Your task to perform on an android device: Search for pizza restaurants on Maps Image 0: 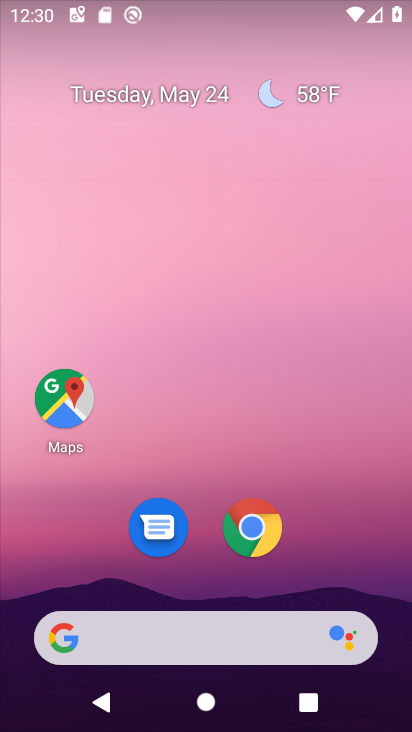
Step 0: click (56, 393)
Your task to perform on an android device: Search for pizza restaurants on Maps Image 1: 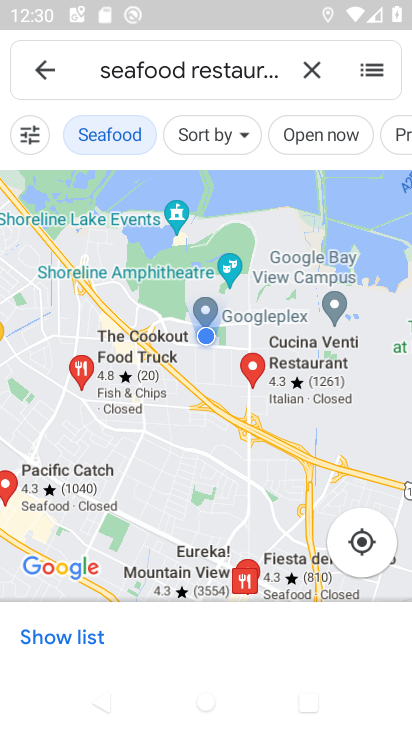
Step 1: click (314, 72)
Your task to perform on an android device: Search for pizza restaurants on Maps Image 2: 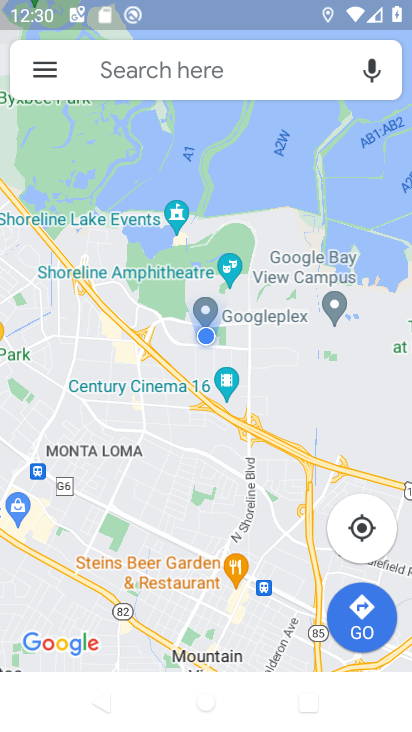
Step 2: click (185, 81)
Your task to perform on an android device: Search for pizza restaurants on Maps Image 3: 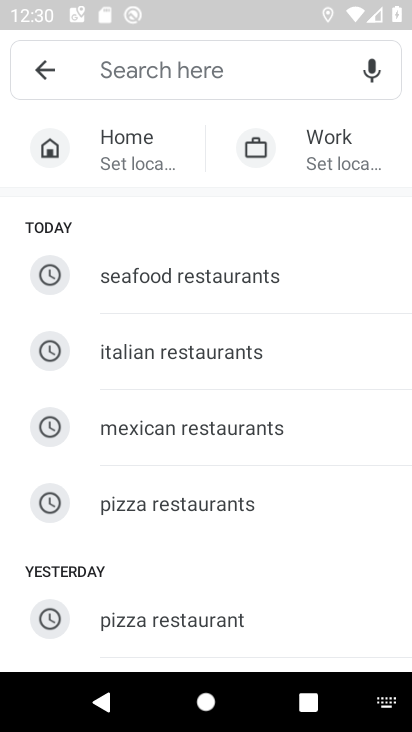
Step 3: click (249, 505)
Your task to perform on an android device: Search for pizza restaurants on Maps Image 4: 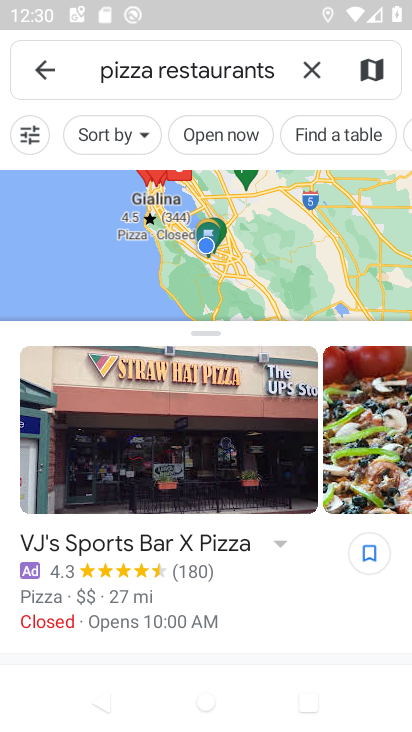
Step 4: task complete